Your task to perform on an android device: Go to Google Image 0: 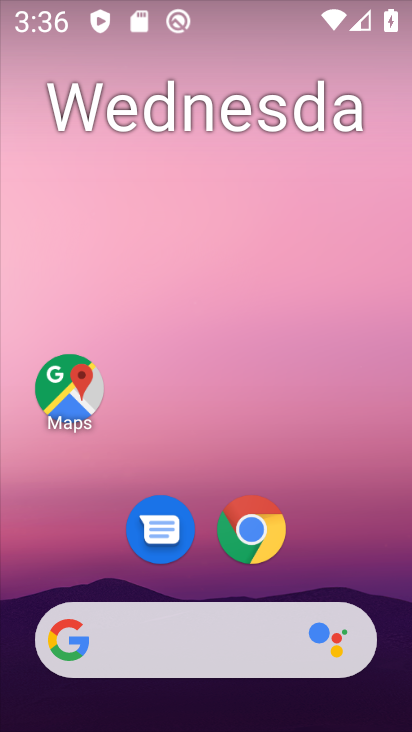
Step 0: drag from (86, 569) to (161, 188)
Your task to perform on an android device: Go to Google Image 1: 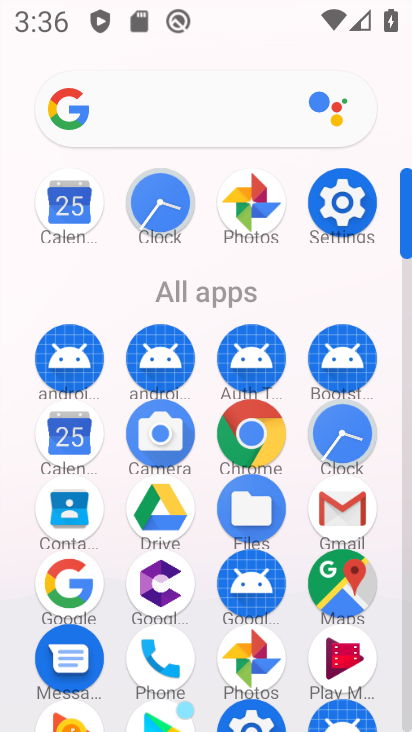
Step 1: click (85, 590)
Your task to perform on an android device: Go to Google Image 2: 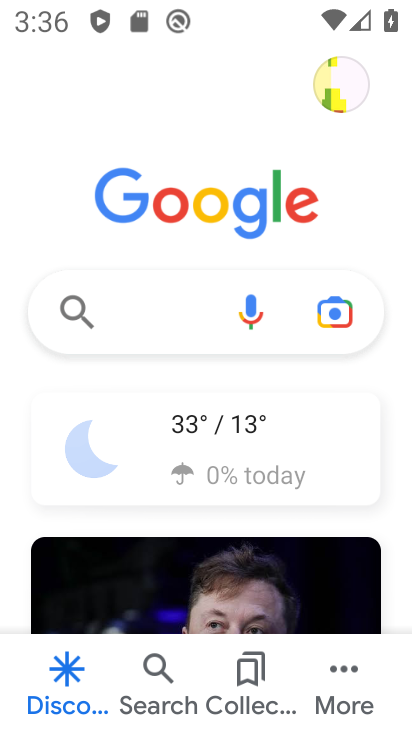
Step 2: task complete